Your task to perform on an android device: check the backup settings in the google photos Image 0: 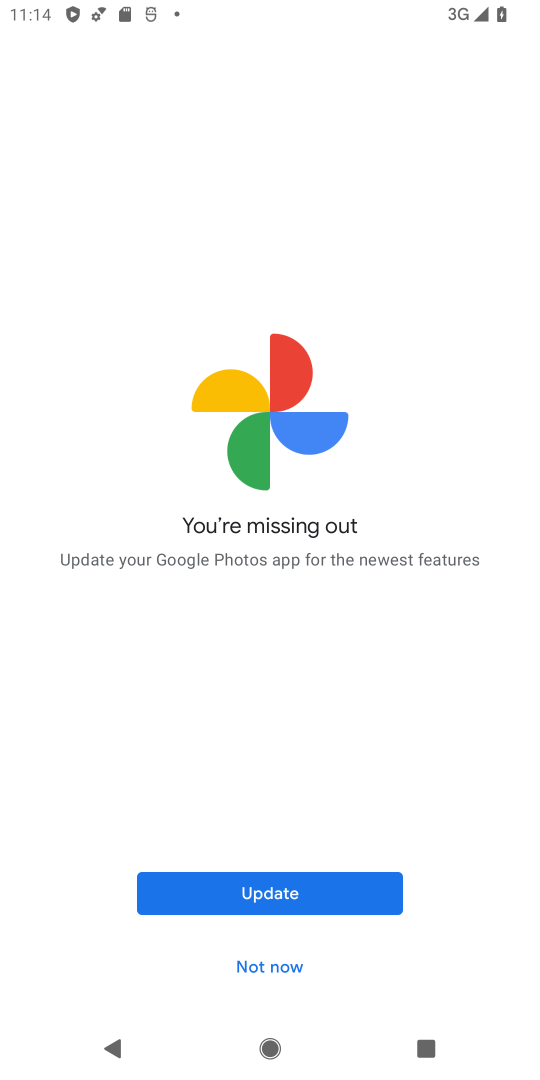
Step 0: press home button
Your task to perform on an android device: check the backup settings in the google photos Image 1: 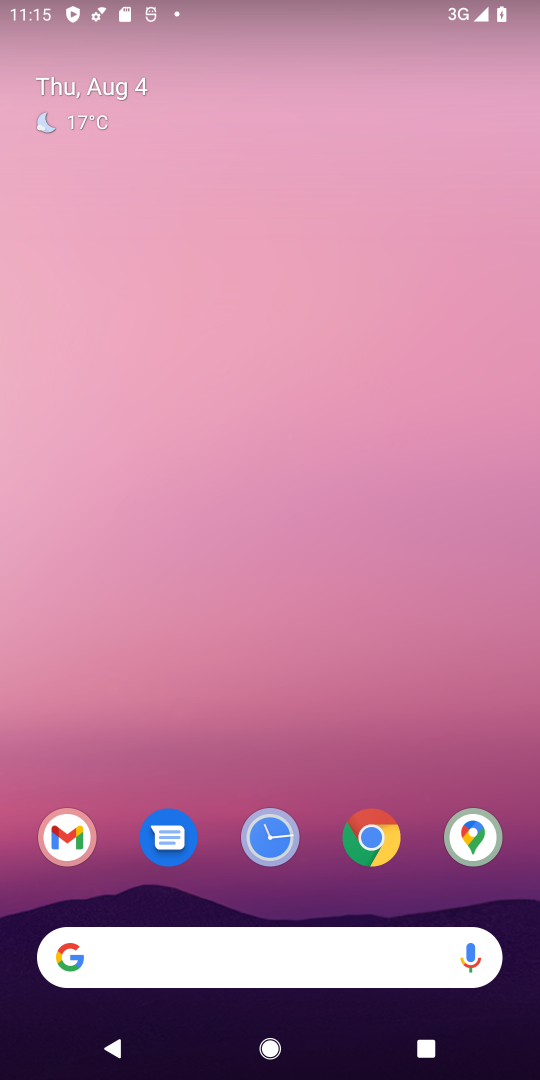
Step 1: drag from (443, 900) to (279, 2)
Your task to perform on an android device: check the backup settings in the google photos Image 2: 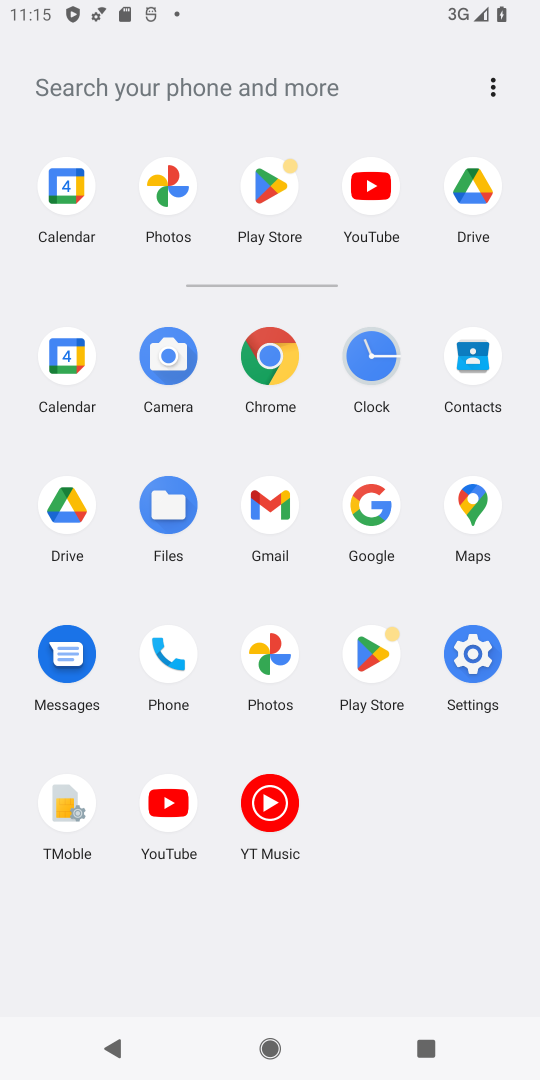
Step 2: click (265, 657)
Your task to perform on an android device: check the backup settings in the google photos Image 3: 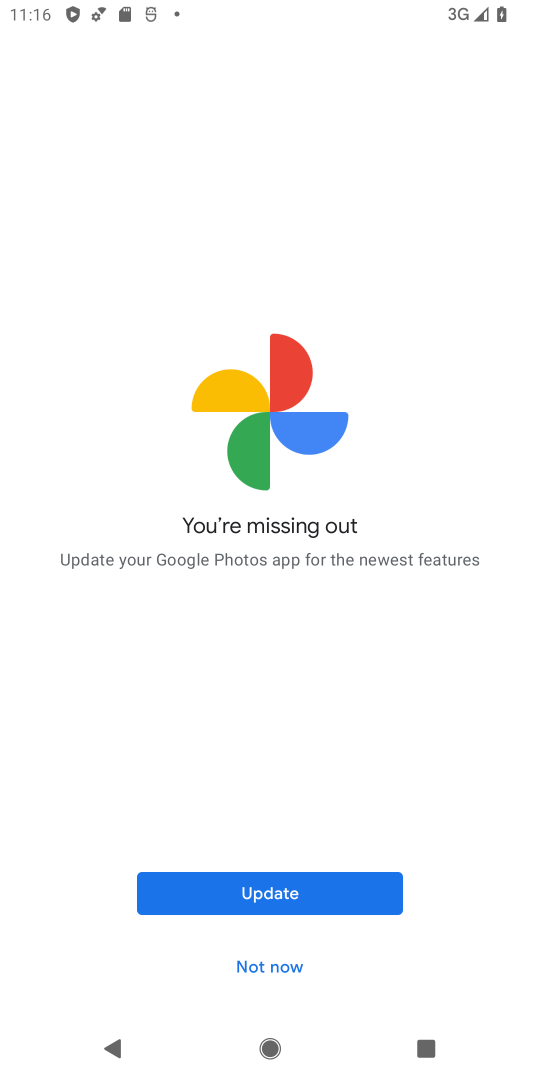
Step 3: task complete